Your task to perform on an android device: Open location settings Image 0: 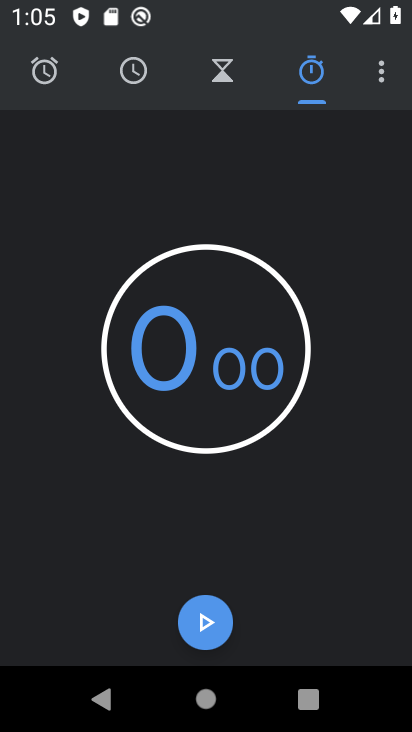
Step 0: press home button
Your task to perform on an android device: Open location settings Image 1: 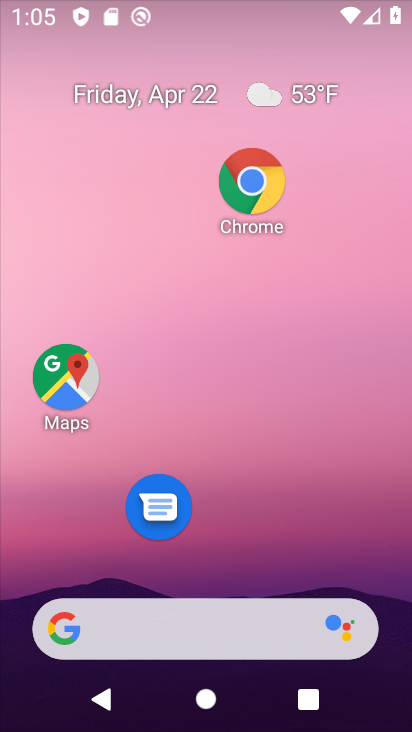
Step 1: drag from (284, 544) to (176, 129)
Your task to perform on an android device: Open location settings Image 2: 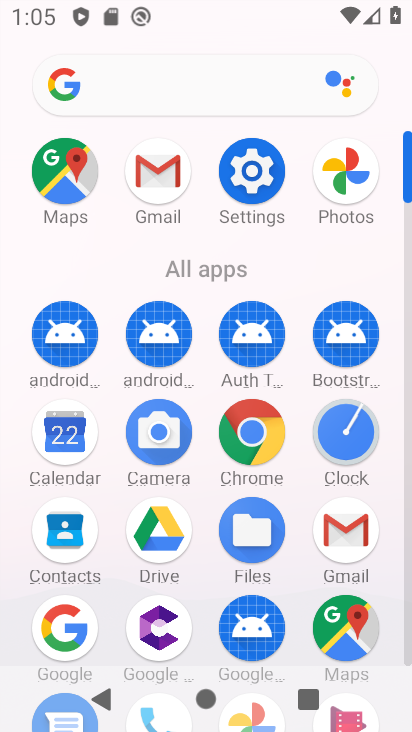
Step 2: click (245, 198)
Your task to perform on an android device: Open location settings Image 3: 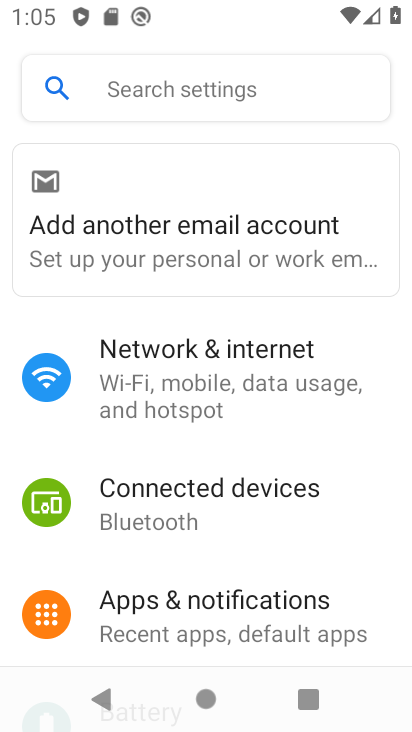
Step 3: drag from (240, 563) to (199, 251)
Your task to perform on an android device: Open location settings Image 4: 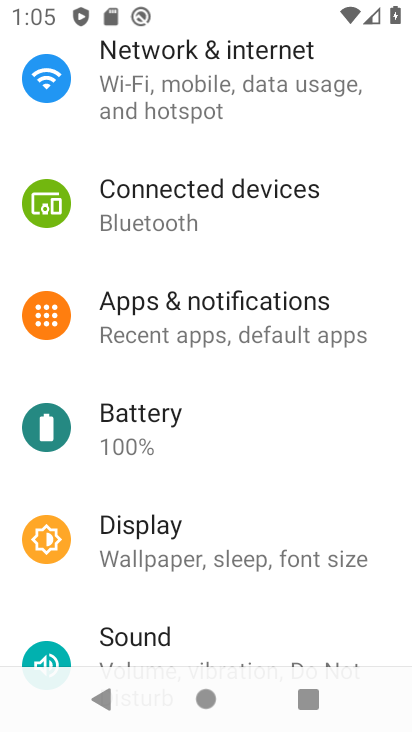
Step 4: drag from (210, 540) to (184, 262)
Your task to perform on an android device: Open location settings Image 5: 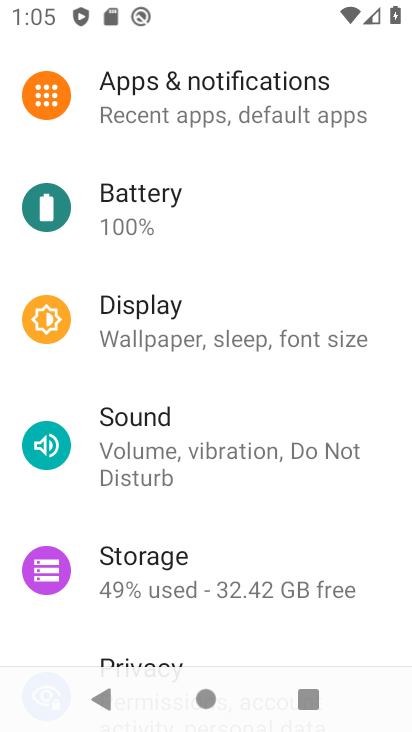
Step 5: drag from (257, 496) to (197, 189)
Your task to perform on an android device: Open location settings Image 6: 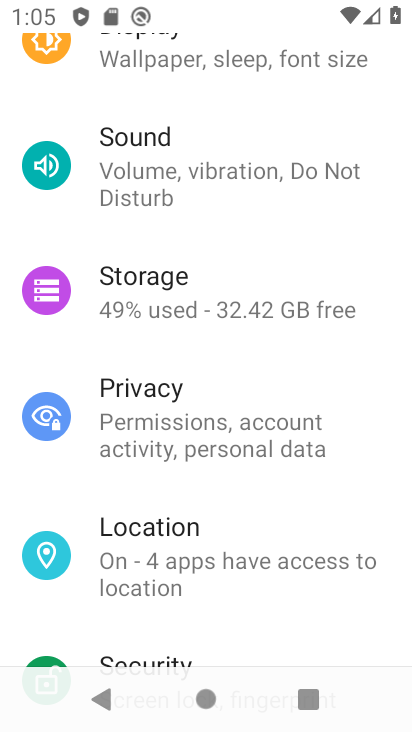
Step 6: click (206, 544)
Your task to perform on an android device: Open location settings Image 7: 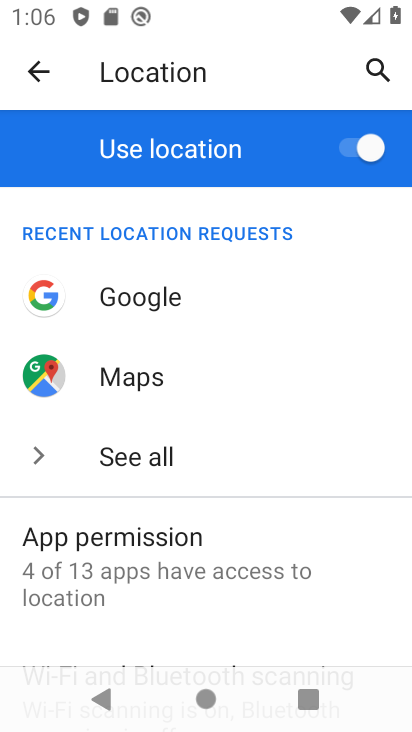
Step 7: task complete